Your task to perform on an android device: What's the weather today? Image 0: 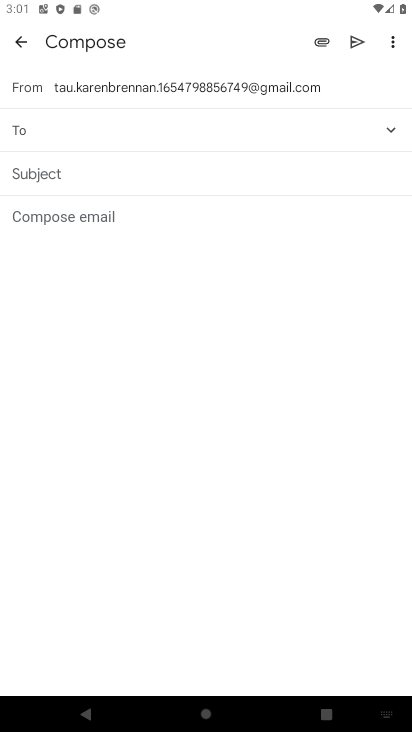
Step 0: press home button
Your task to perform on an android device: What's the weather today? Image 1: 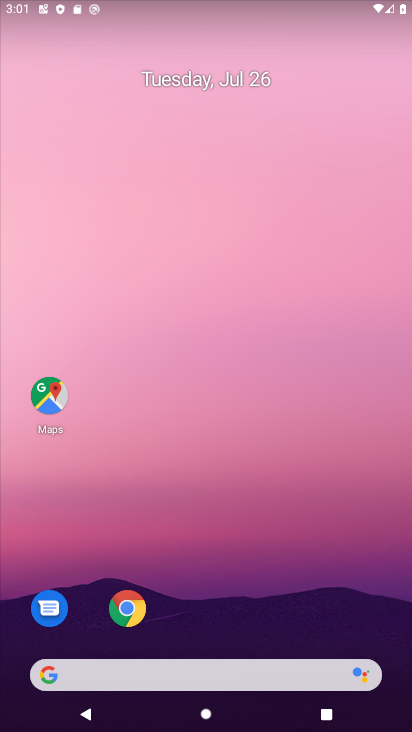
Step 1: drag from (254, 633) to (226, 53)
Your task to perform on an android device: What's the weather today? Image 2: 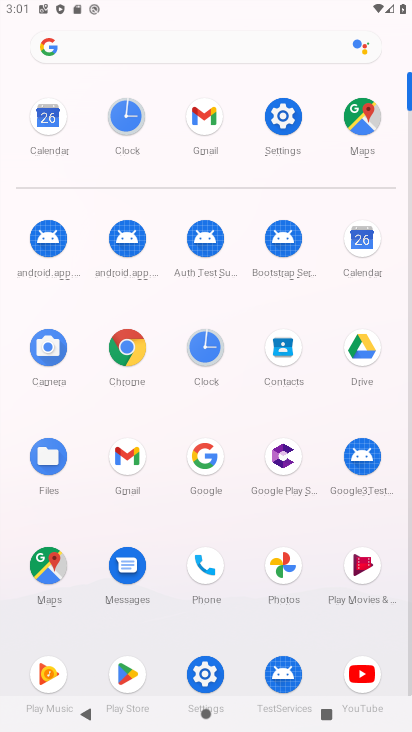
Step 2: click (268, 103)
Your task to perform on an android device: What's the weather today? Image 3: 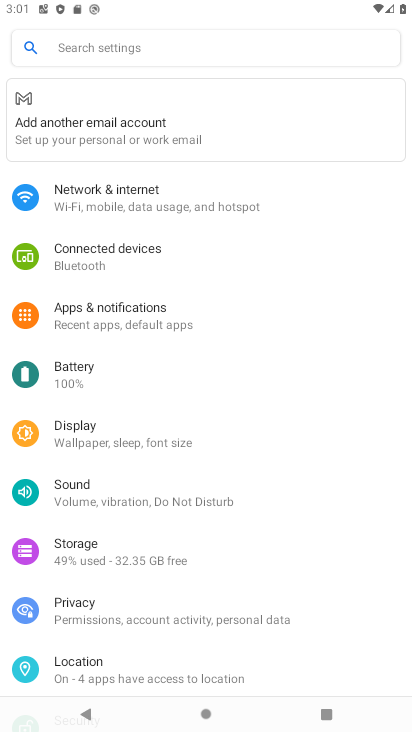
Step 3: click (141, 54)
Your task to perform on an android device: What's the weather today? Image 4: 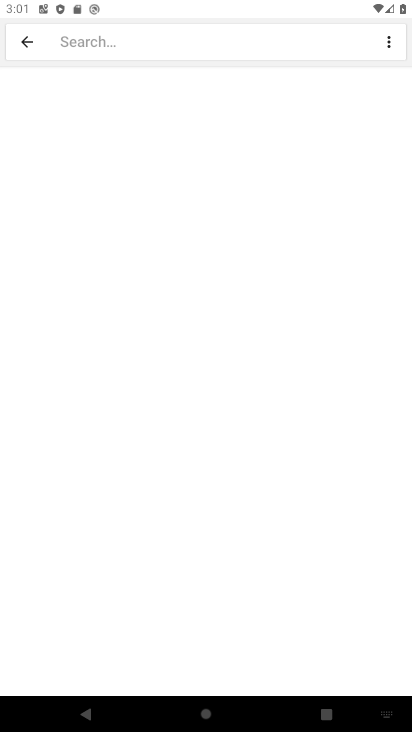
Step 4: type "weather"
Your task to perform on an android device: What's the weather today? Image 5: 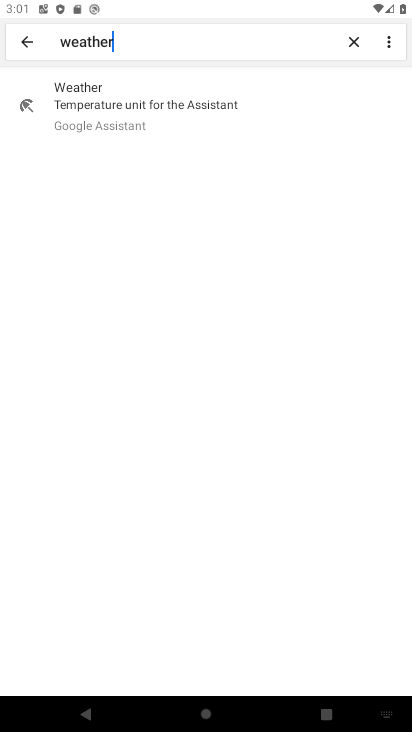
Step 5: click (136, 90)
Your task to perform on an android device: What's the weather today? Image 6: 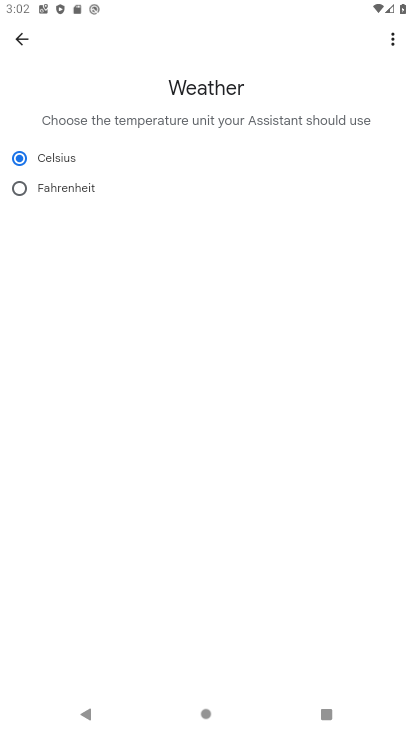
Step 6: task complete